Your task to perform on an android device: Go to network settings Image 0: 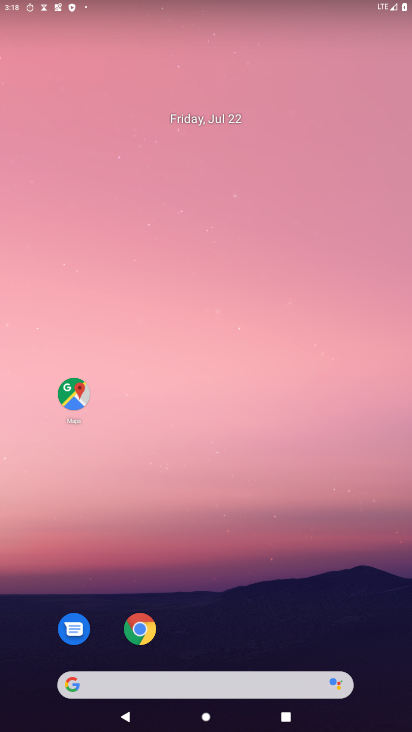
Step 0: drag from (199, 689) to (241, 27)
Your task to perform on an android device: Go to network settings Image 1: 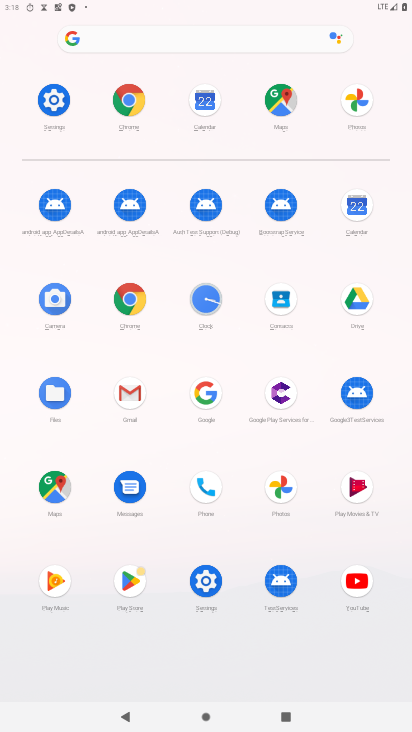
Step 1: click (66, 105)
Your task to perform on an android device: Go to network settings Image 2: 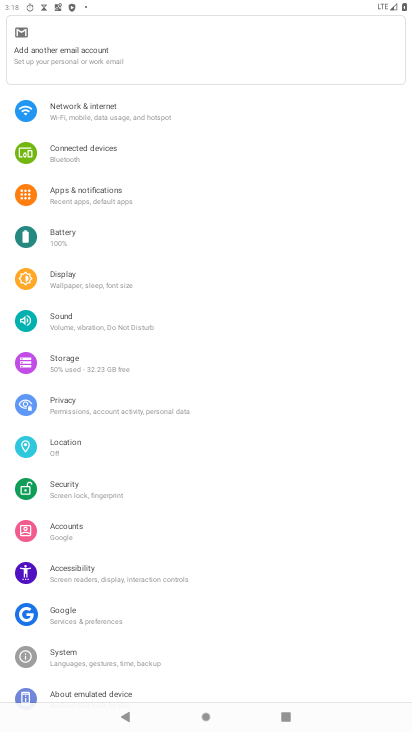
Step 2: click (109, 115)
Your task to perform on an android device: Go to network settings Image 3: 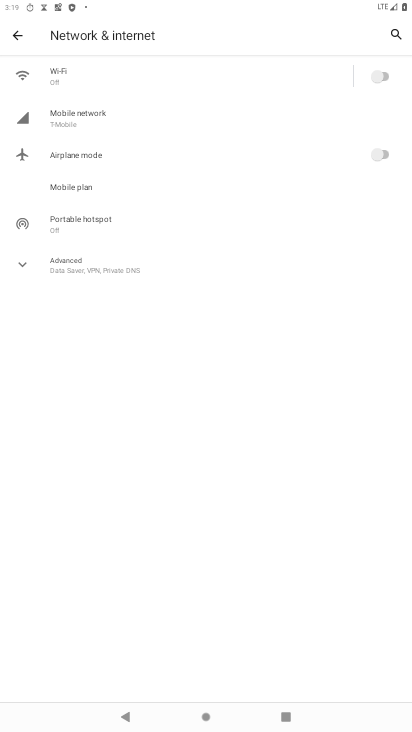
Step 3: task complete